Your task to perform on an android device: Set the phone to "Do not disturb". Image 0: 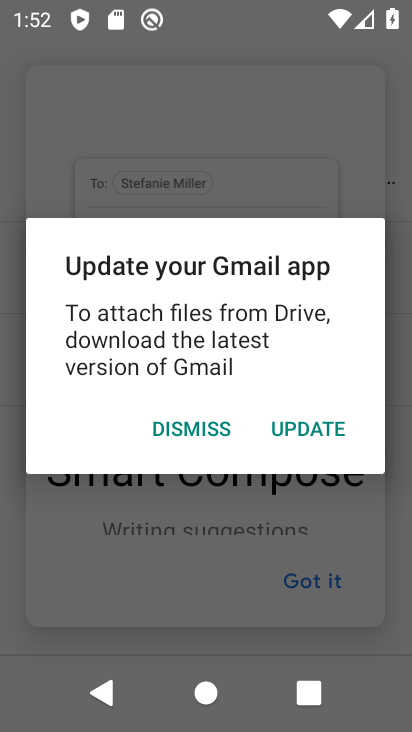
Step 0: drag from (323, 6) to (293, 418)
Your task to perform on an android device: Set the phone to "Do not disturb". Image 1: 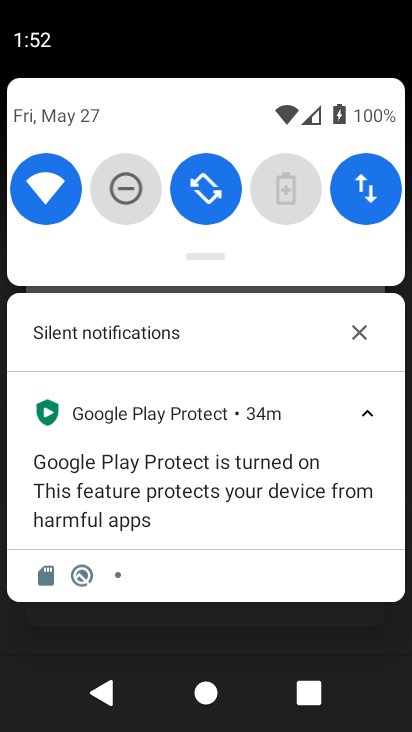
Step 1: click (136, 176)
Your task to perform on an android device: Set the phone to "Do not disturb". Image 2: 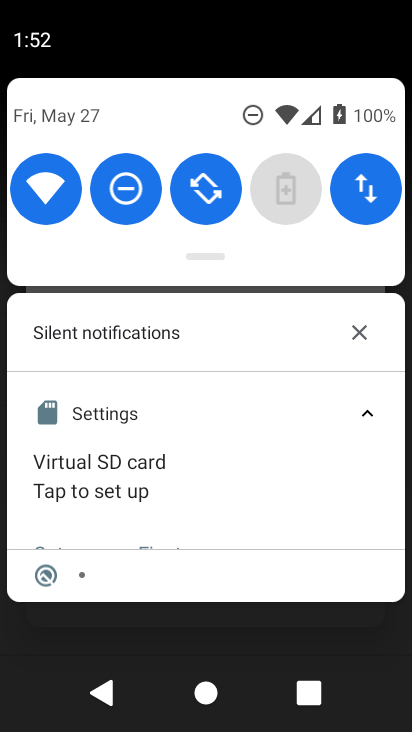
Step 2: task complete